Your task to perform on an android device: Open Youtube and go to the subscriptions tab Image 0: 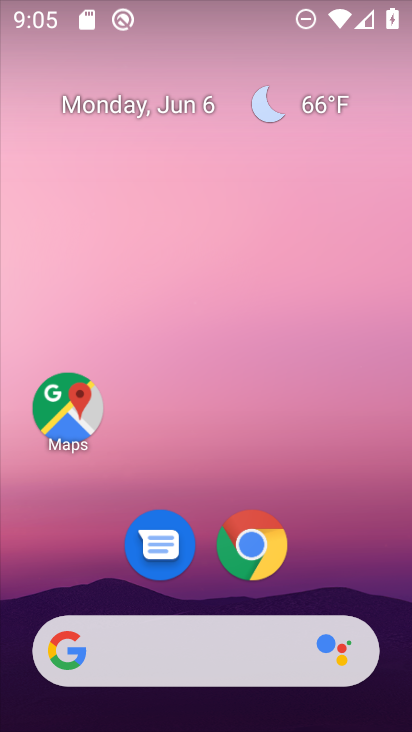
Step 0: drag from (210, 579) to (300, 10)
Your task to perform on an android device: Open Youtube and go to the subscriptions tab Image 1: 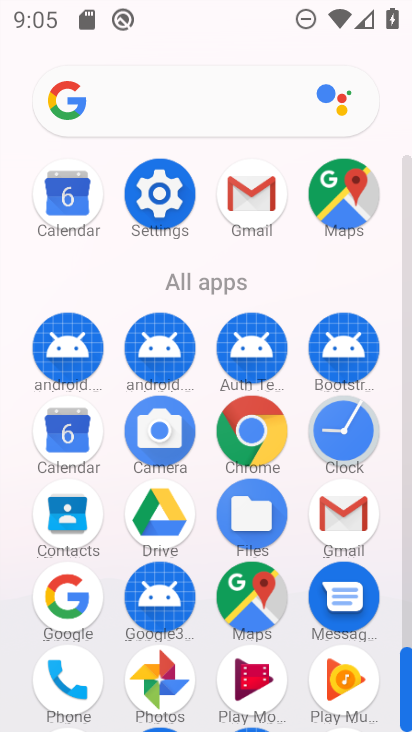
Step 1: drag from (204, 624) to (247, 331)
Your task to perform on an android device: Open Youtube and go to the subscriptions tab Image 2: 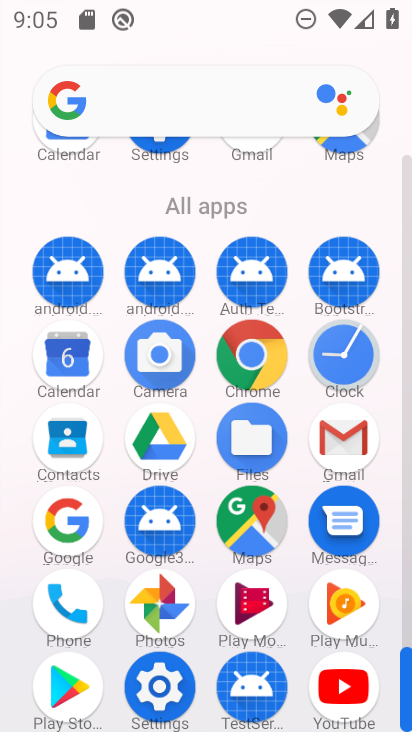
Step 2: click (330, 696)
Your task to perform on an android device: Open Youtube and go to the subscriptions tab Image 3: 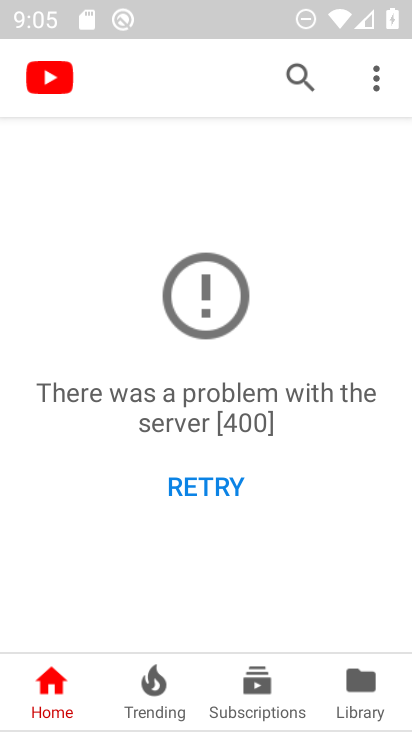
Step 3: click (208, 490)
Your task to perform on an android device: Open Youtube and go to the subscriptions tab Image 4: 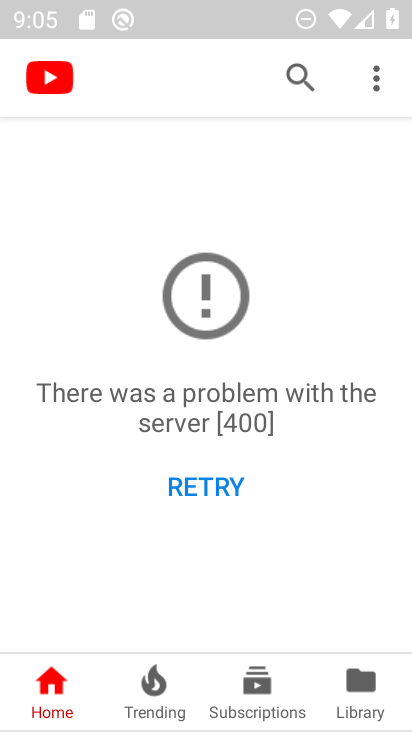
Step 4: click (208, 490)
Your task to perform on an android device: Open Youtube and go to the subscriptions tab Image 5: 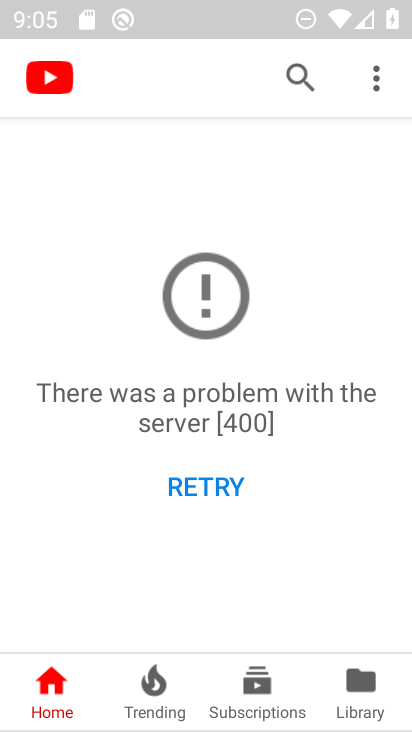
Step 5: click (265, 706)
Your task to perform on an android device: Open Youtube and go to the subscriptions tab Image 6: 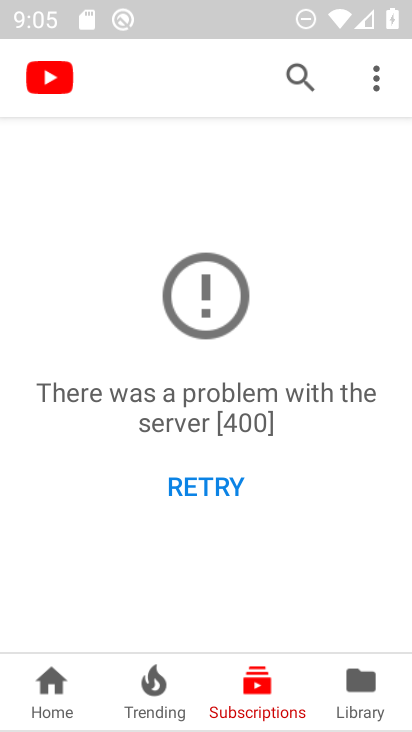
Step 6: click (226, 497)
Your task to perform on an android device: Open Youtube and go to the subscriptions tab Image 7: 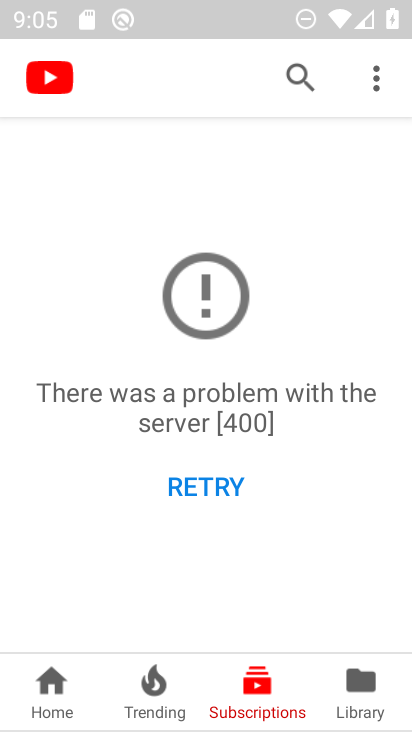
Step 7: task complete